Your task to perform on an android device: turn notification dots off Image 0: 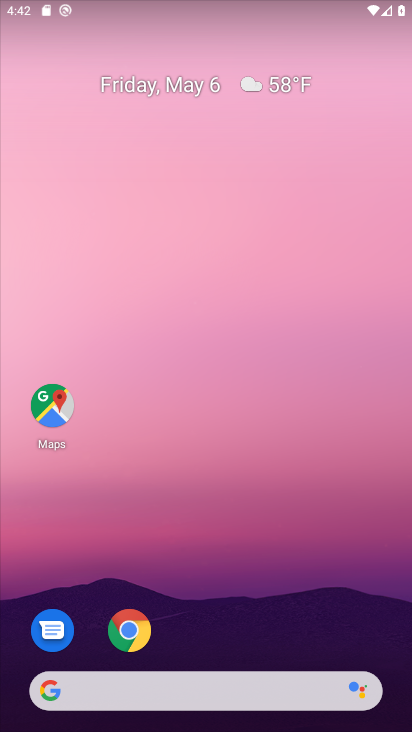
Step 0: drag from (265, 624) to (307, 73)
Your task to perform on an android device: turn notification dots off Image 1: 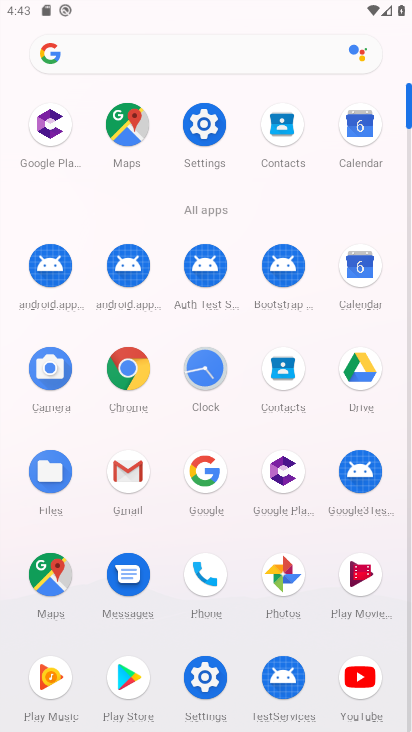
Step 1: click (197, 141)
Your task to perform on an android device: turn notification dots off Image 2: 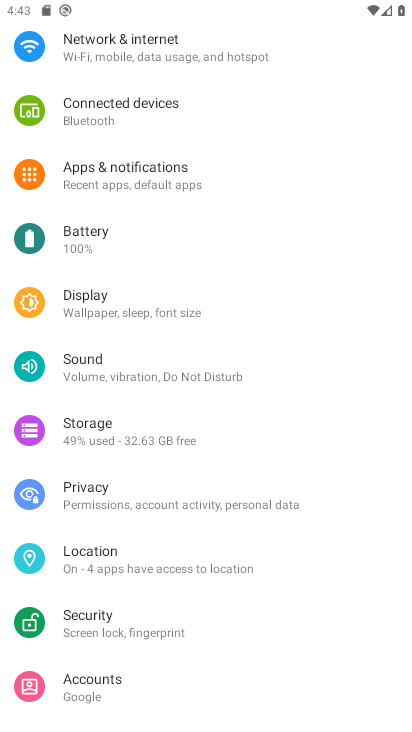
Step 2: click (173, 166)
Your task to perform on an android device: turn notification dots off Image 3: 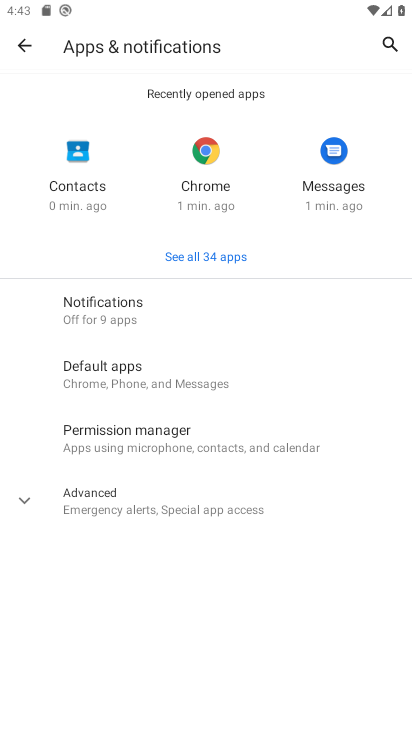
Step 3: click (111, 317)
Your task to perform on an android device: turn notification dots off Image 4: 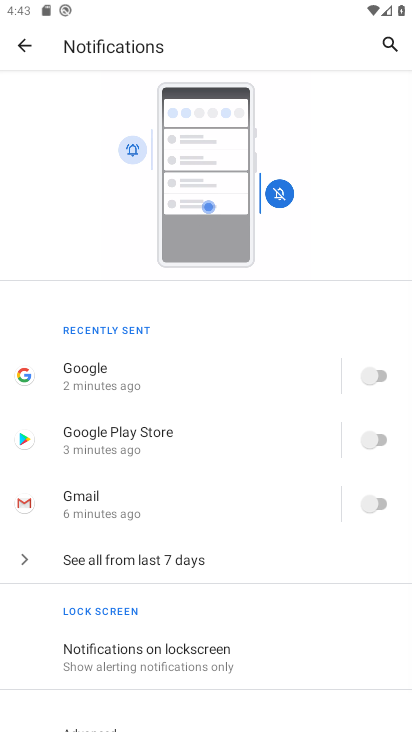
Step 4: drag from (135, 600) to (169, 114)
Your task to perform on an android device: turn notification dots off Image 5: 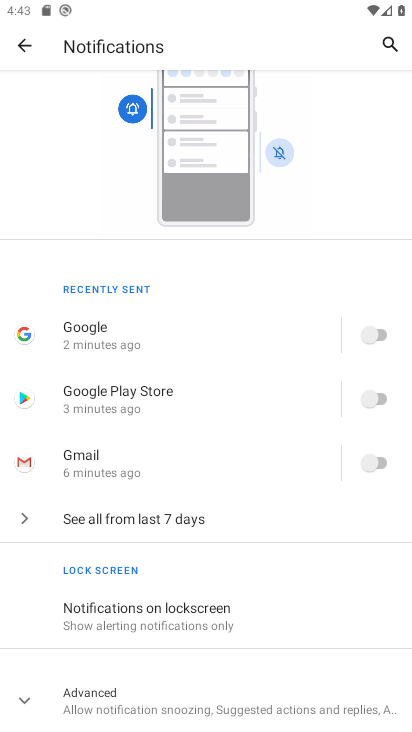
Step 5: click (223, 691)
Your task to perform on an android device: turn notification dots off Image 6: 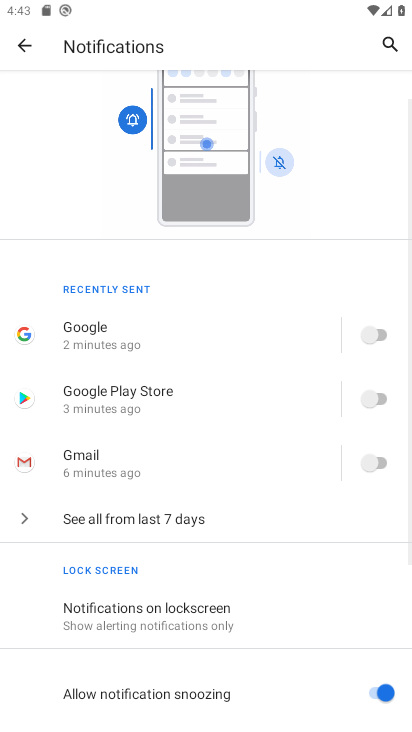
Step 6: task complete